Your task to perform on an android device: check out phone information Image 0: 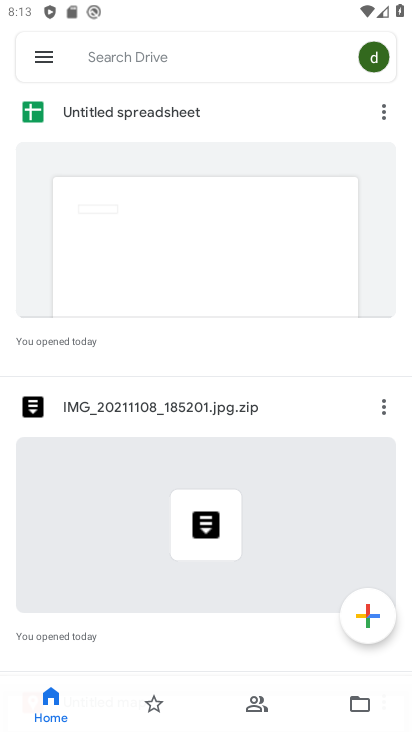
Step 0: press home button
Your task to perform on an android device: check out phone information Image 1: 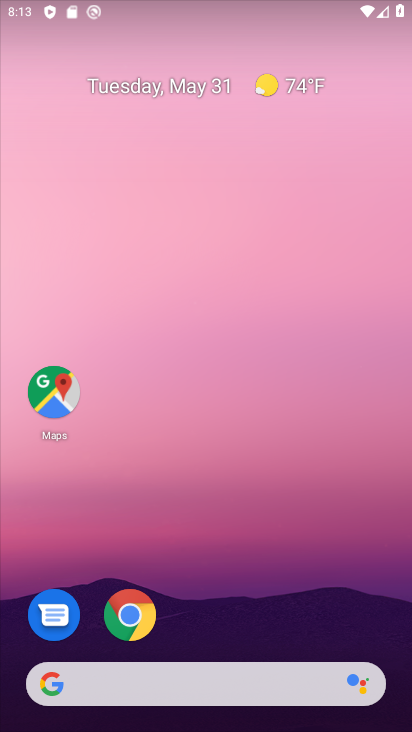
Step 1: drag from (232, 638) to (235, 162)
Your task to perform on an android device: check out phone information Image 2: 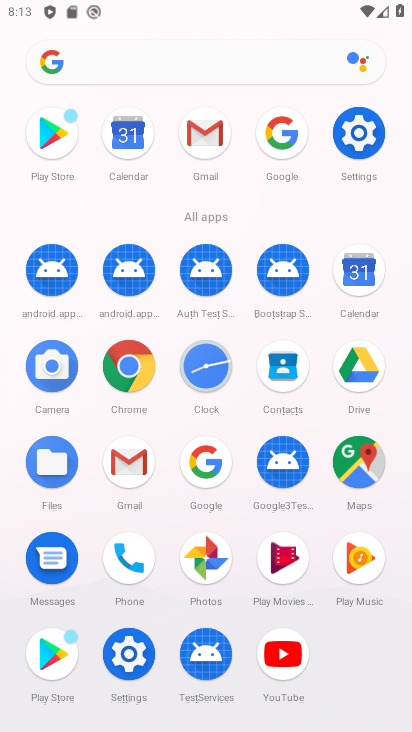
Step 2: click (346, 133)
Your task to perform on an android device: check out phone information Image 3: 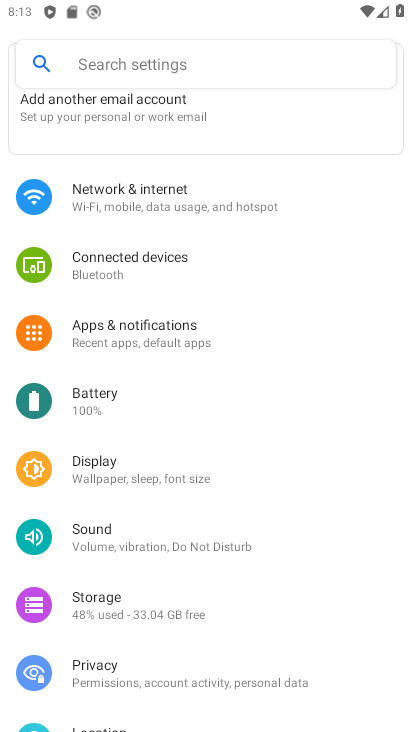
Step 3: drag from (211, 686) to (229, 292)
Your task to perform on an android device: check out phone information Image 4: 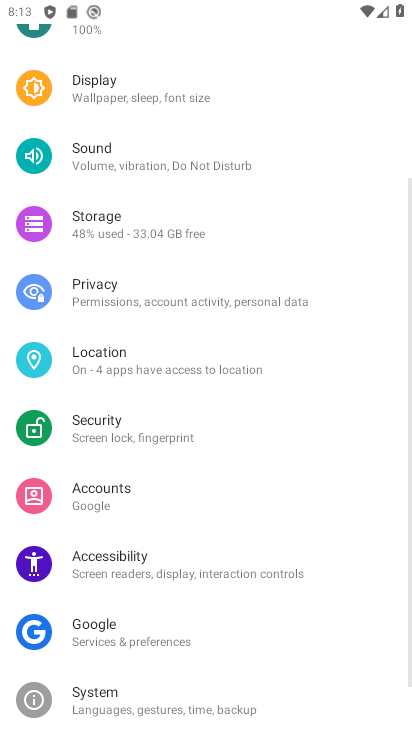
Step 4: drag from (275, 598) to (287, 281)
Your task to perform on an android device: check out phone information Image 5: 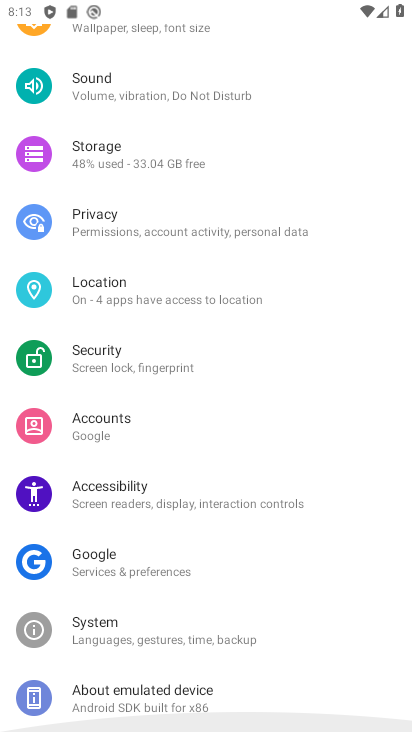
Step 5: click (256, 309)
Your task to perform on an android device: check out phone information Image 6: 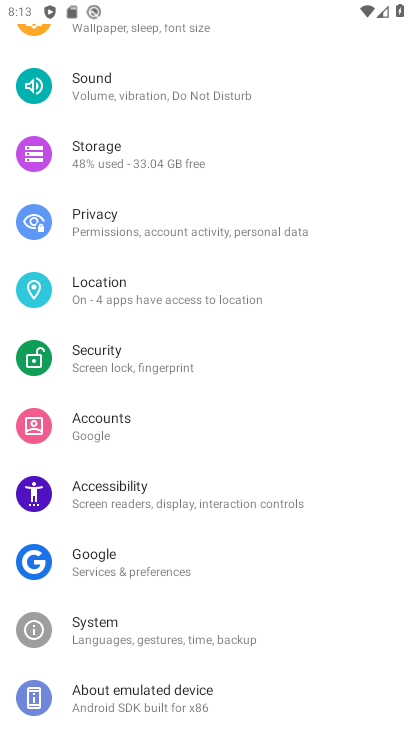
Step 6: click (101, 700)
Your task to perform on an android device: check out phone information Image 7: 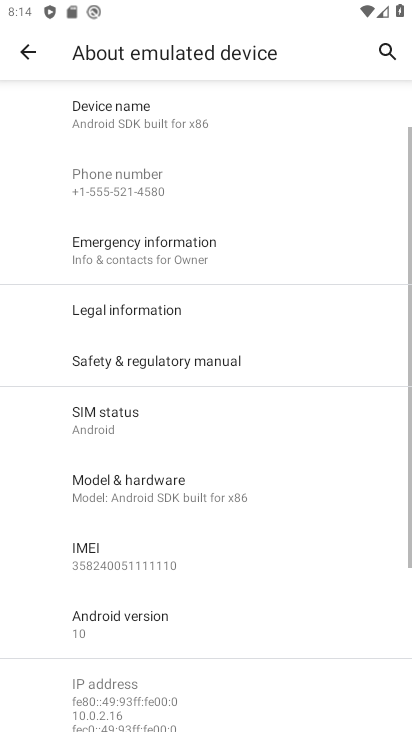
Step 7: task complete